Your task to perform on an android device: open wifi settings Image 0: 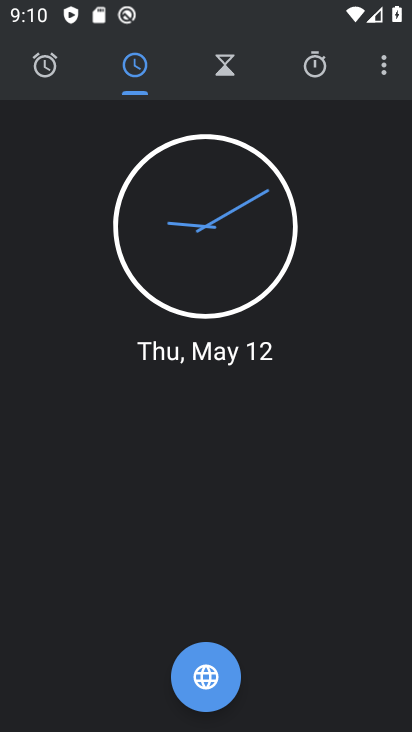
Step 0: press home button
Your task to perform on an android device: open wifi settings Image 1: 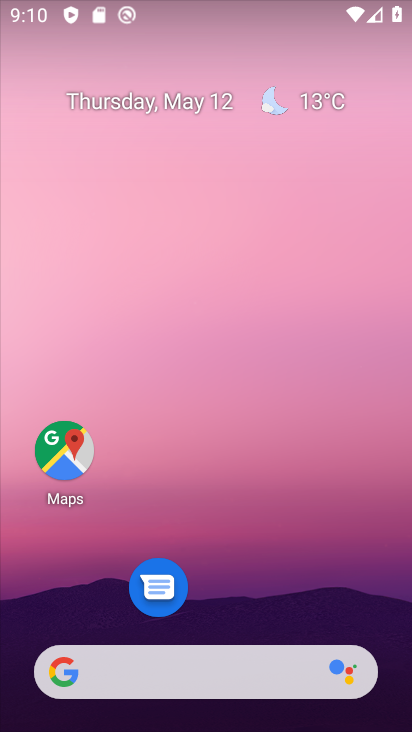
Step 1: drag from (227, 628) to (314, 34)
Your task to perform on an android device: open wifi settings Image 2: 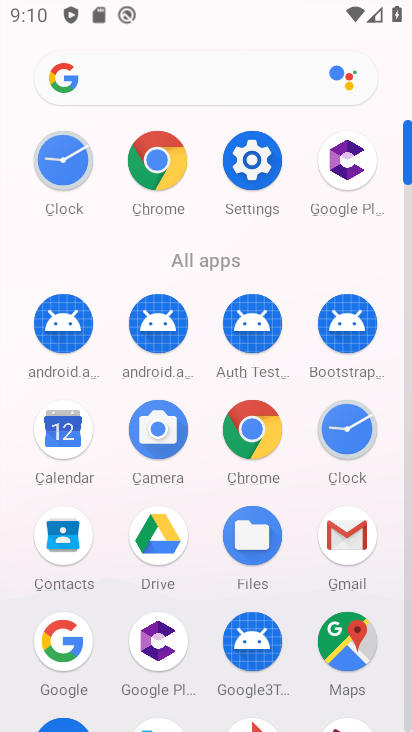
Step 2: click (243, 147)
Your task to perform on an android device: open wifi settings Image 3: 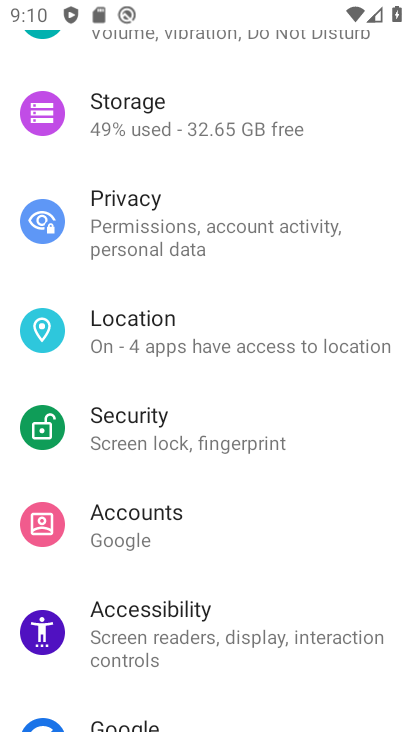
Step 3: drag from (132, 88) to (144, 494)
Your task to perform on an android device: open wifi settings Image 4: 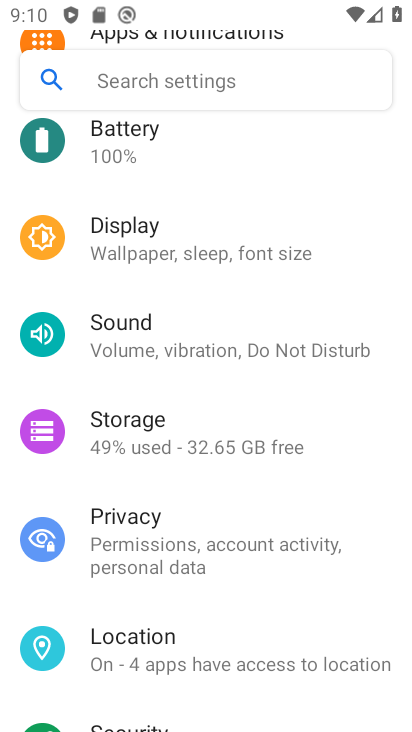
Step 4: drag from (194, 209) to (191, 433)
Your task to perform on an android device: open wifi settings Image 5: 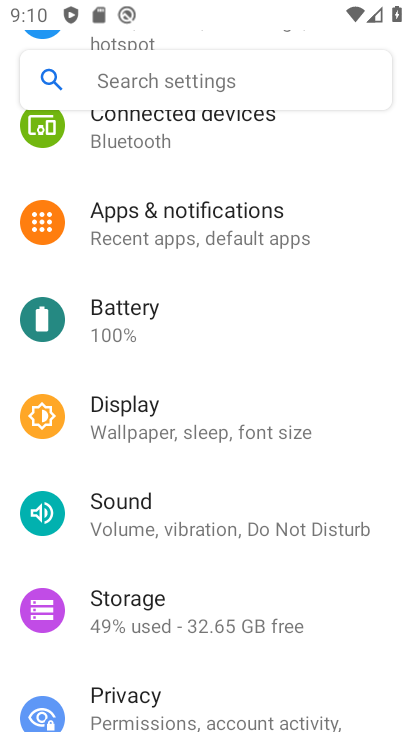
Step 5: drag from (199, 152) to (160, 647)
Your task to perform on an android device: open wifi settings Image 6: 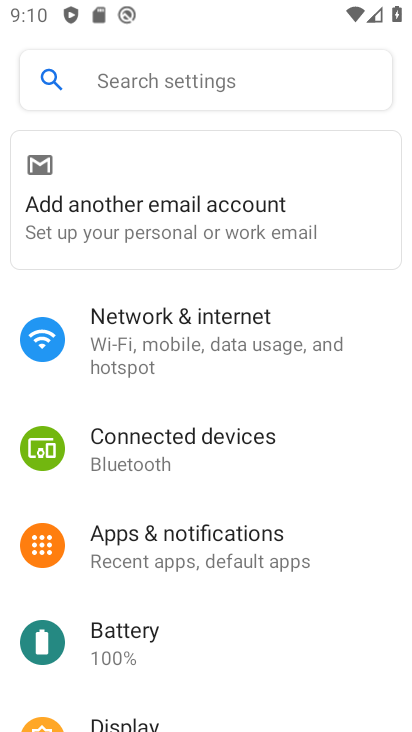
Step 6: click (178, 336)
Your task to perform on an android device: open wifi settings Image 7: 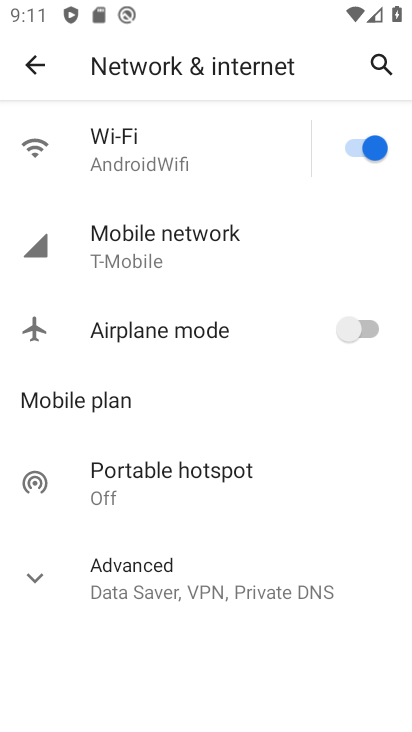
Step 7: click (146, 135)
Your task to perform on an android device: open wifi settings Image 8: 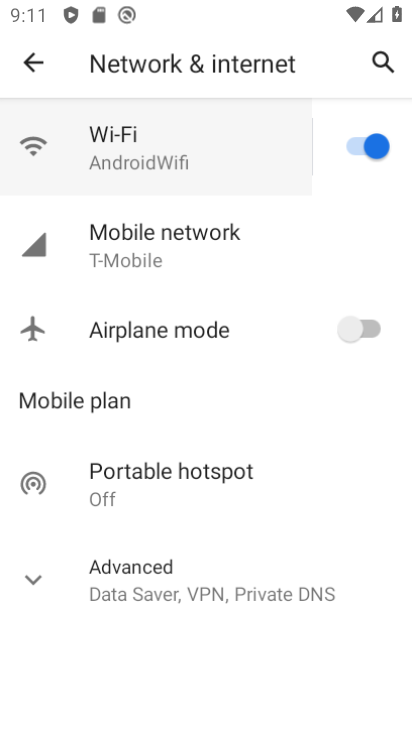
Step 8: task complete